Your task to perform on an android device: Go to ESPN.com Image 0: 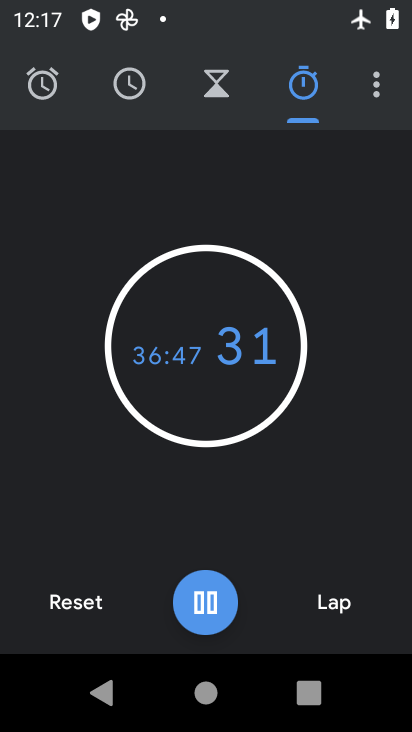
Step 0: press home button
Your task to perform on an android device: Go to ESPN.com Image 1: 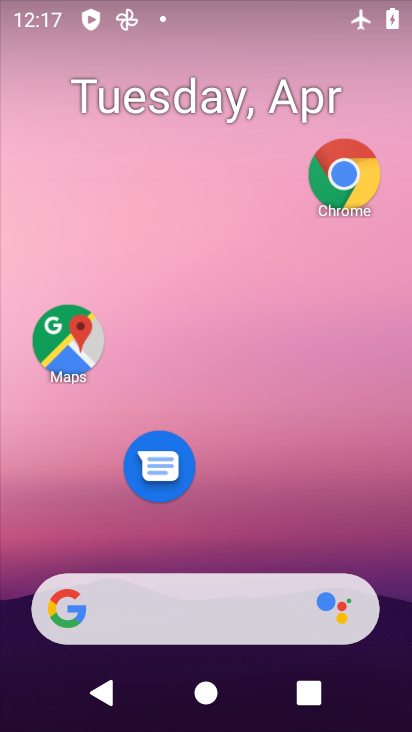
Step 1: drag from (305, 537) to (404, 30)
Your task to perform on an android device: Go to ESPN.com Image 2: 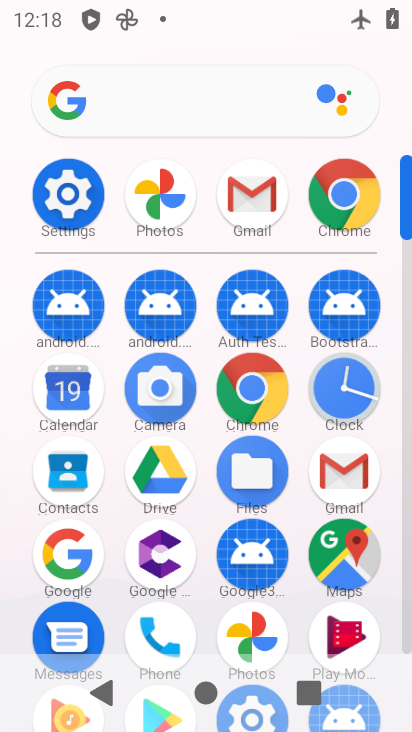
Step 2: click (345, 185)
Your task to perform on an android device: Go to ESPN.com Image 3: 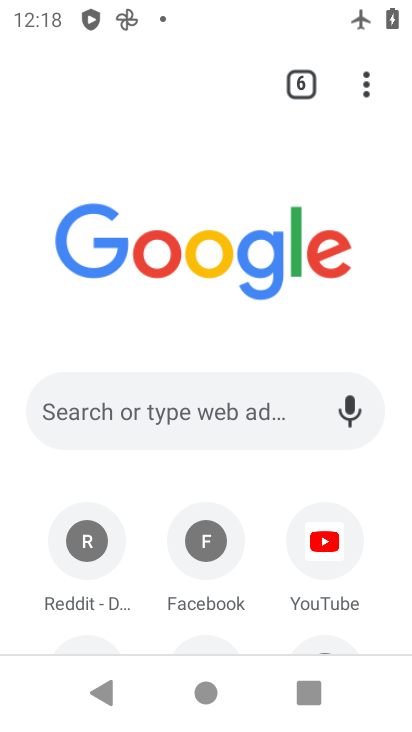
Step 3: drag from (221, 508) to (233, 172)
Your task to perform on an android device: Go to ESPN.com Image 4: 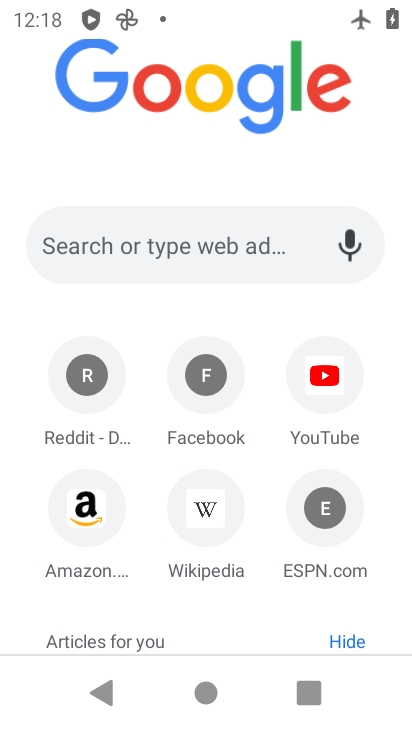
Step 4: click (328, 505)
Your task to perform on an android device: Go to ESPN.com Image 5: 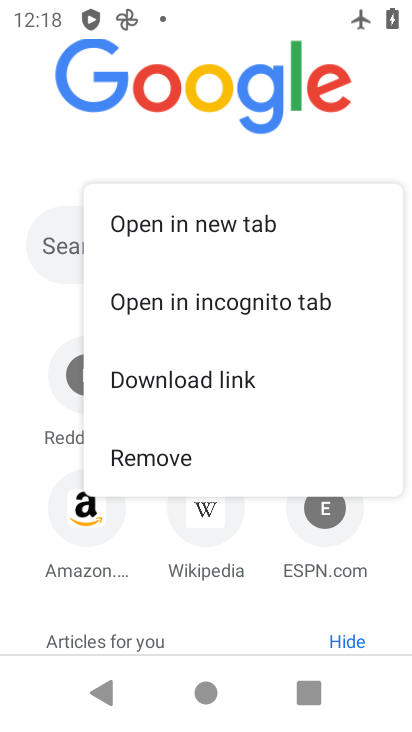
Step 5: click (235, 559)
Your task to perform on an android device: Go to ESPN.com Image 6: 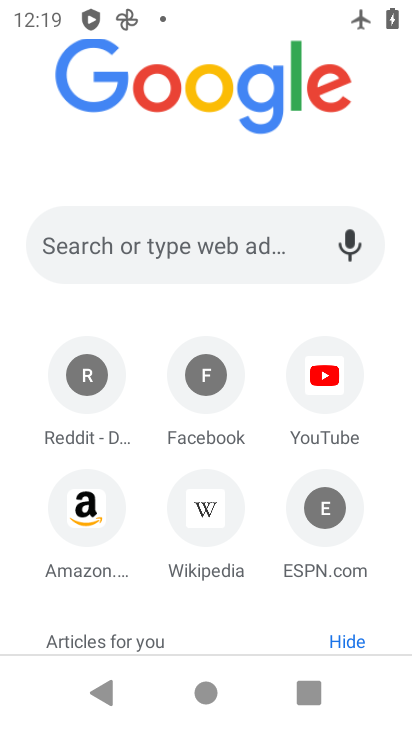
Step 6: click (315, 531)
Your task to perform on an android device: Go to ESPN.com Image 7: 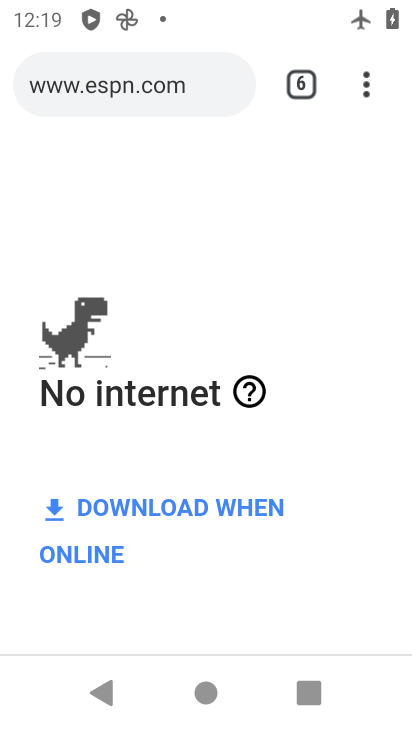
Step 7: task complete